Your task to perform on an android device: Open battery settings Image 0: 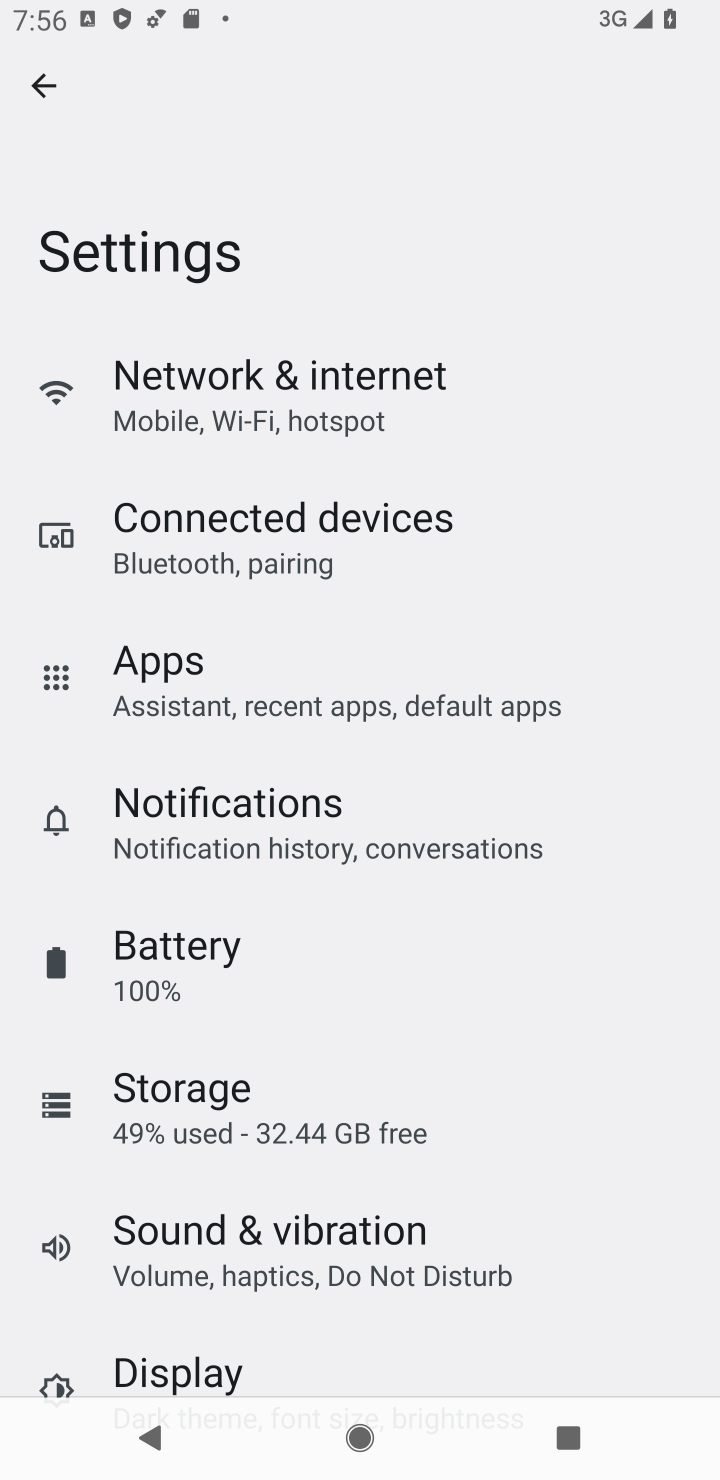
Step 0: click (167, 959)
Your task to perform on an android device: Open battery settings Image 1: 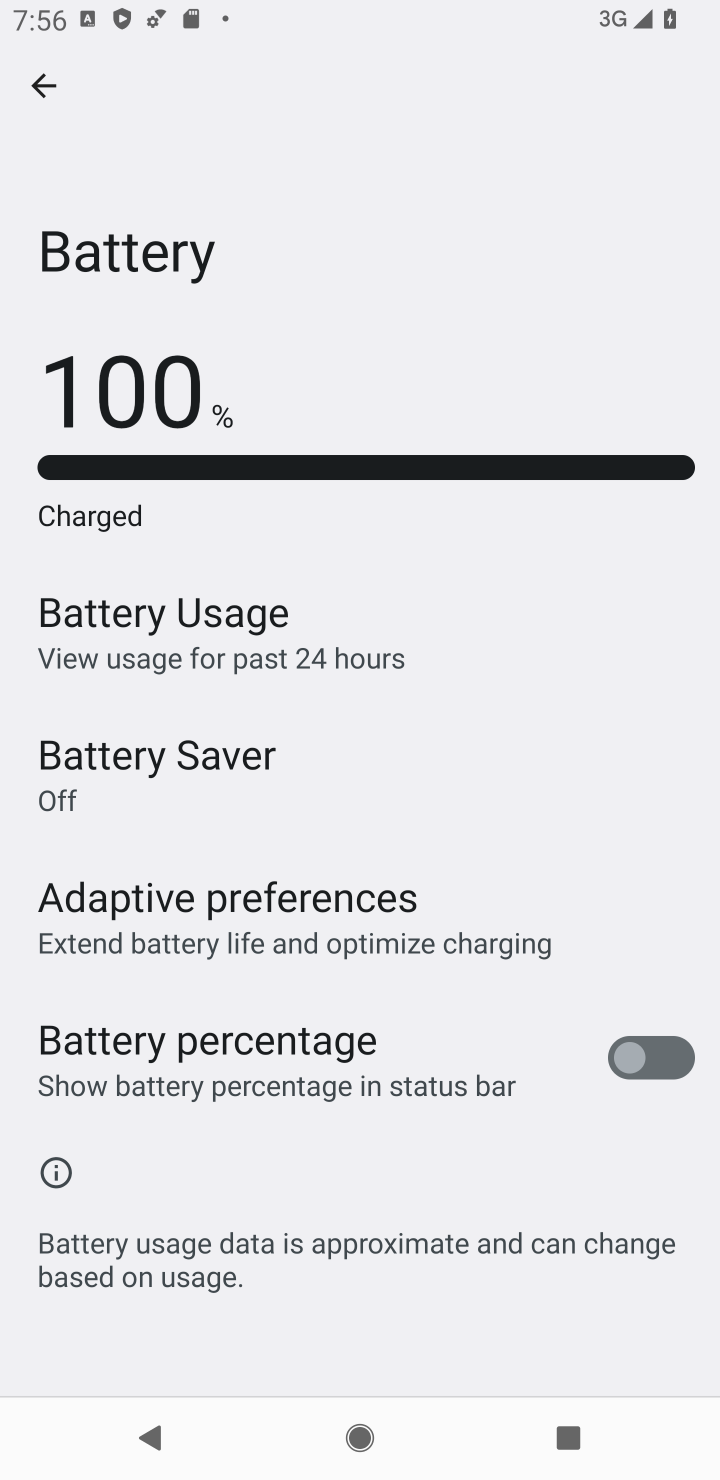
Step 1: task complete